Your task to perform on an android device: Open Google Maps Image 0: 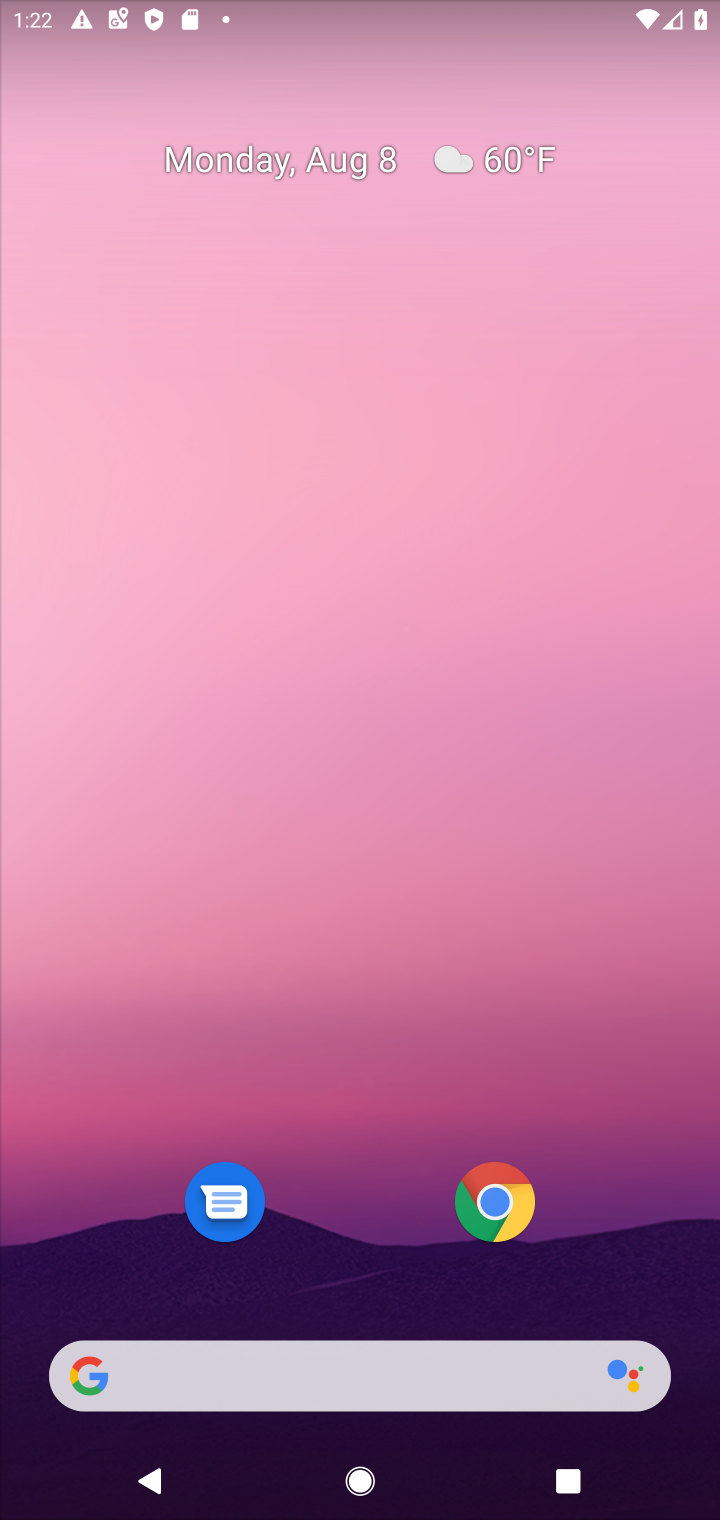
Step 0: press home button
Your task to perform on an android device: Open Google Maps Image 1: 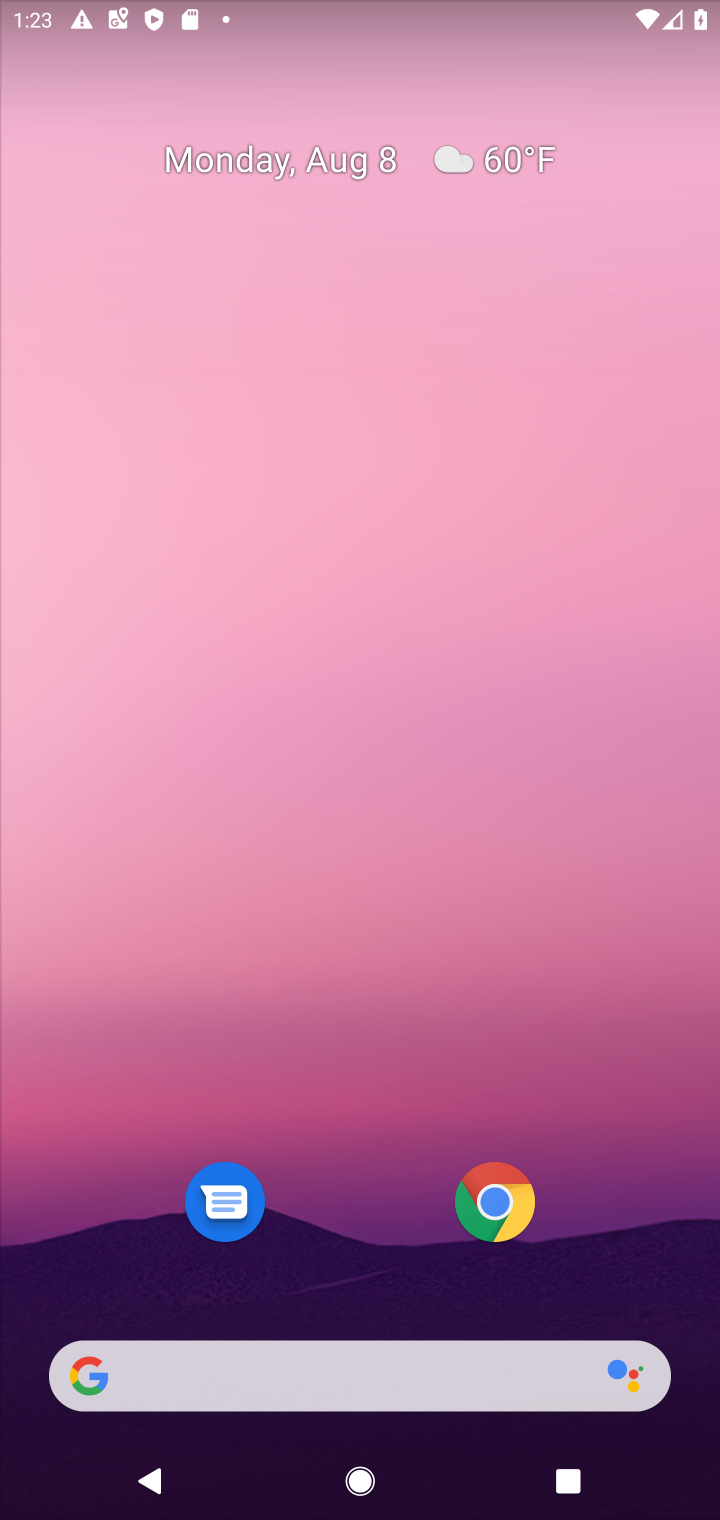
Step 1: drag from (363, 1242) to (443, 318)
Your task to perform on an android device: Open Google Maps Image 2: 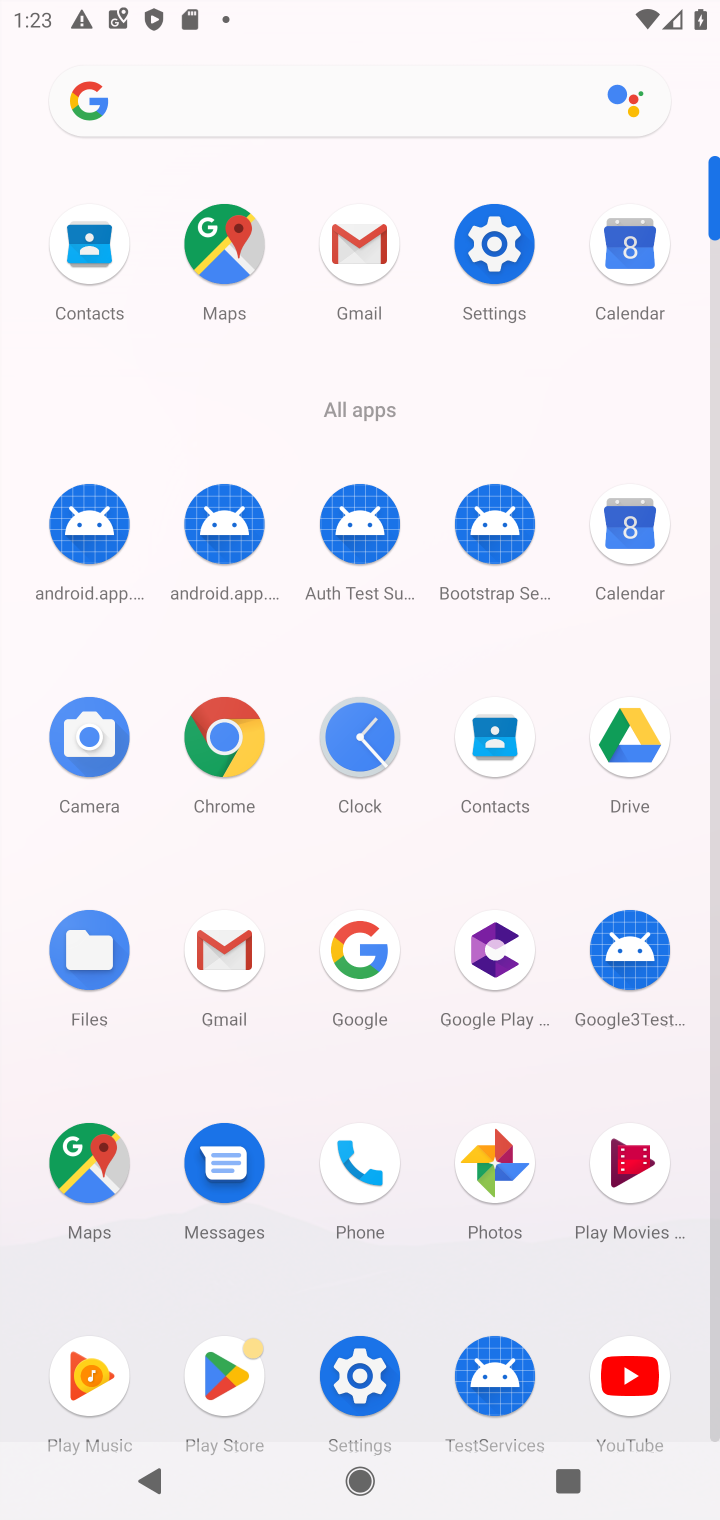
Step 2: click (79, 1191)
Your task to perform on an android device: Open Google Maps Image 3: 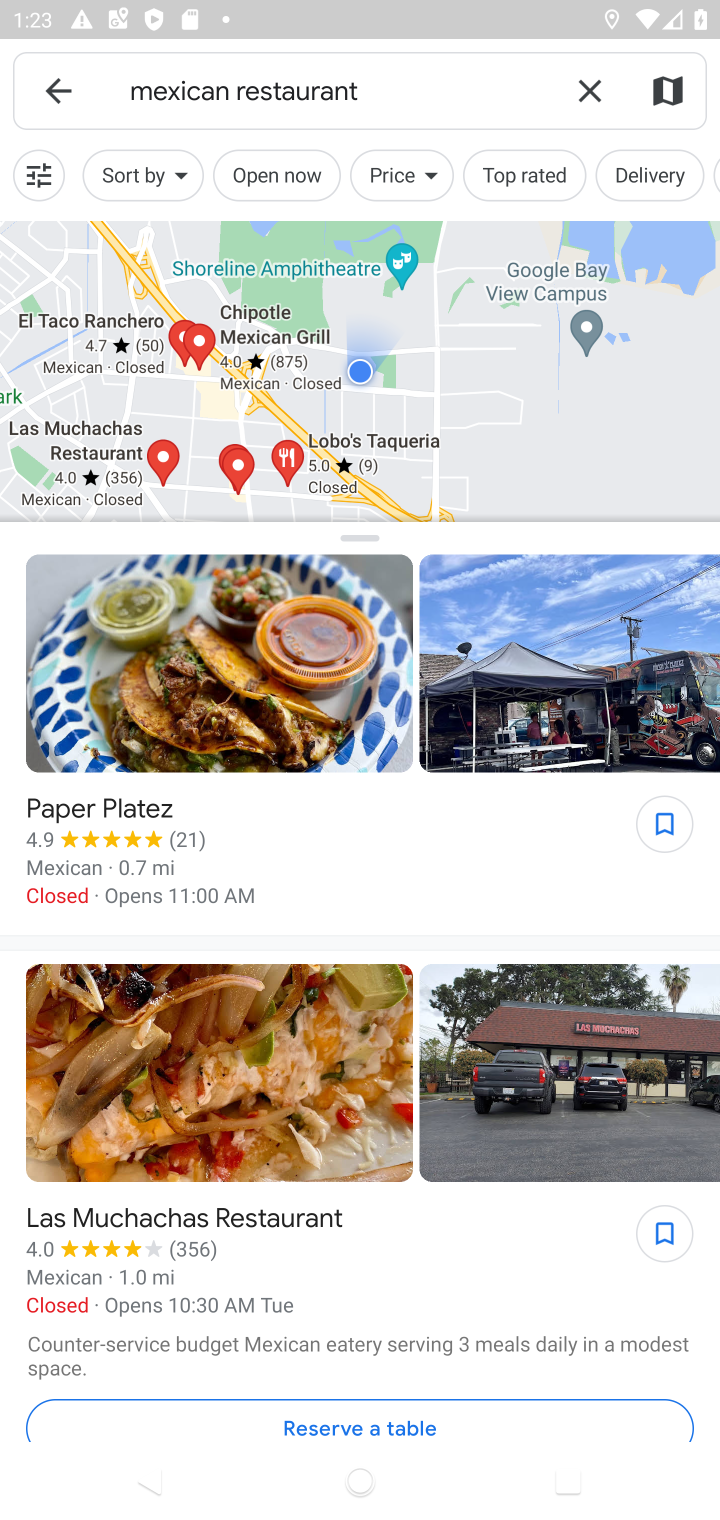
Step 3: task complete